Your task to perform on an android device: What's the weather today? Image 0: 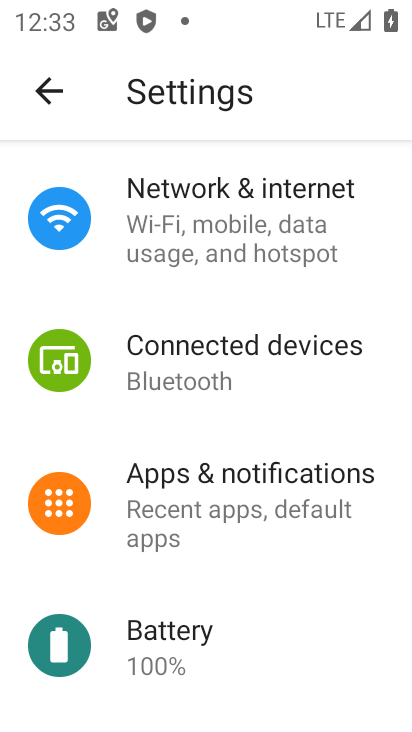
Step 0: press home button
Your task to perform on an android device: What's the weather today? Image 1: 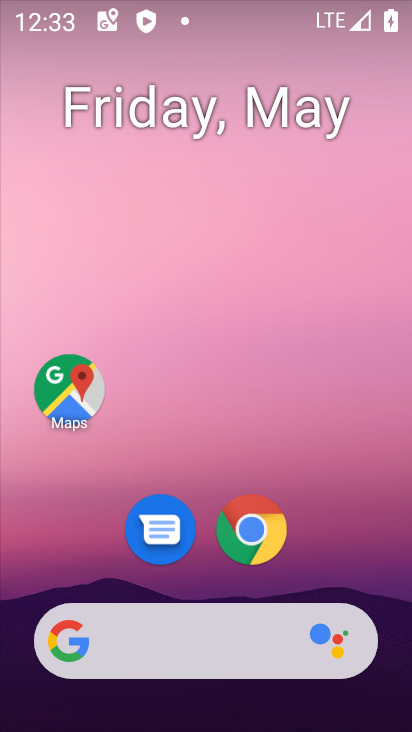
Step 1: click (241, 534)
Your task to perform on an android device: What's the weather today? Image 2: 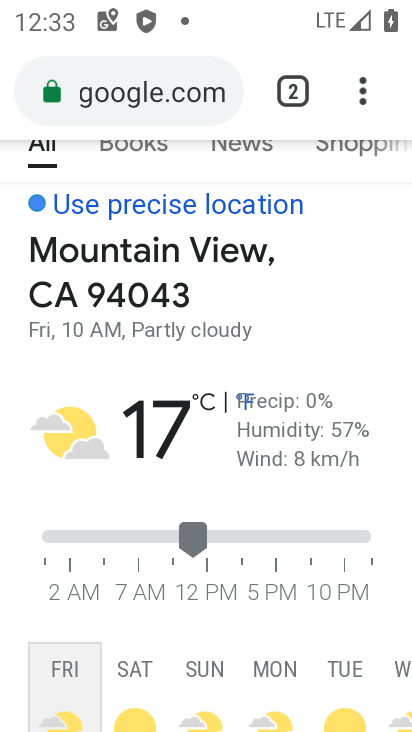
Step 2: task complete